Your task to perform on an android device: Add "razer blackwidow" to the cart on target.com, then select checkout. Image 0: 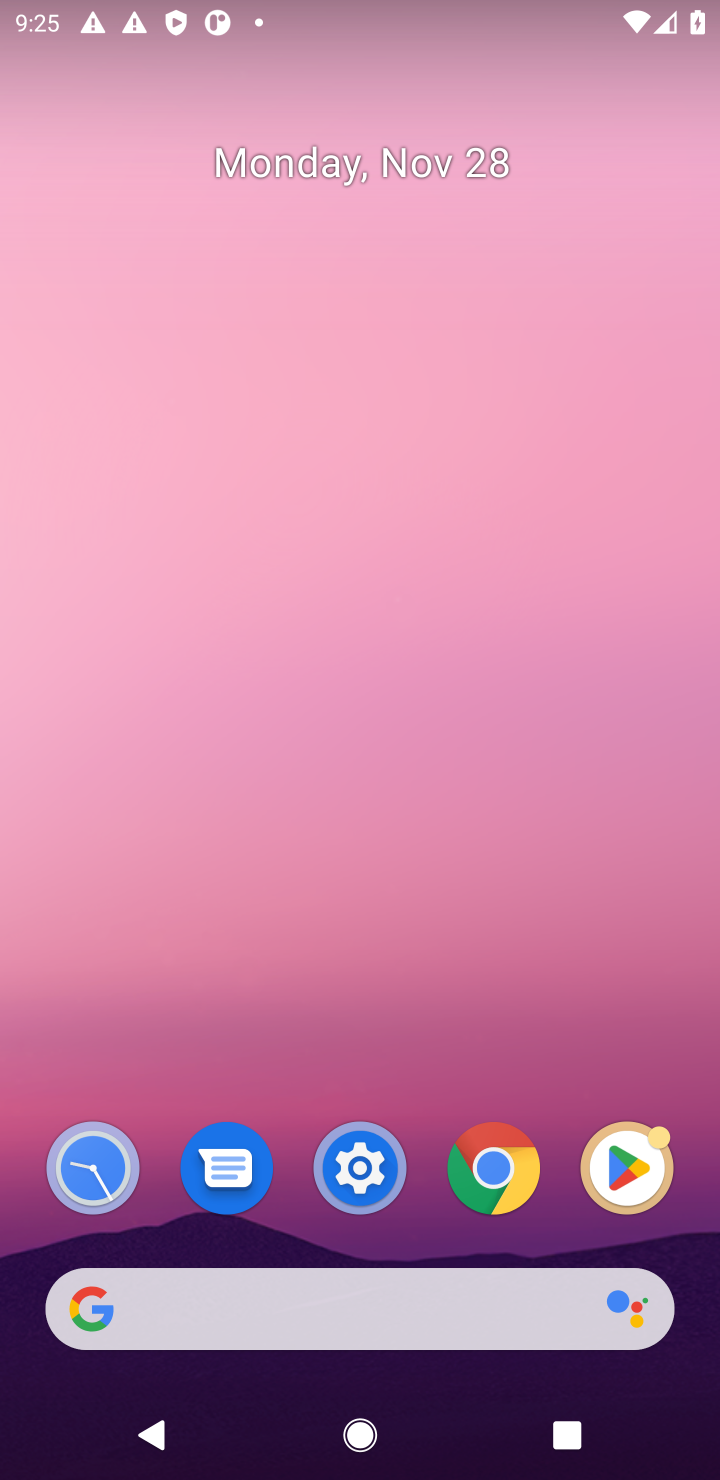
Step 0: click (372, 1332)
Your task to perform on an android device: Add "razer blackwidow" to the cart on target.com, then select checkout. Image 1: 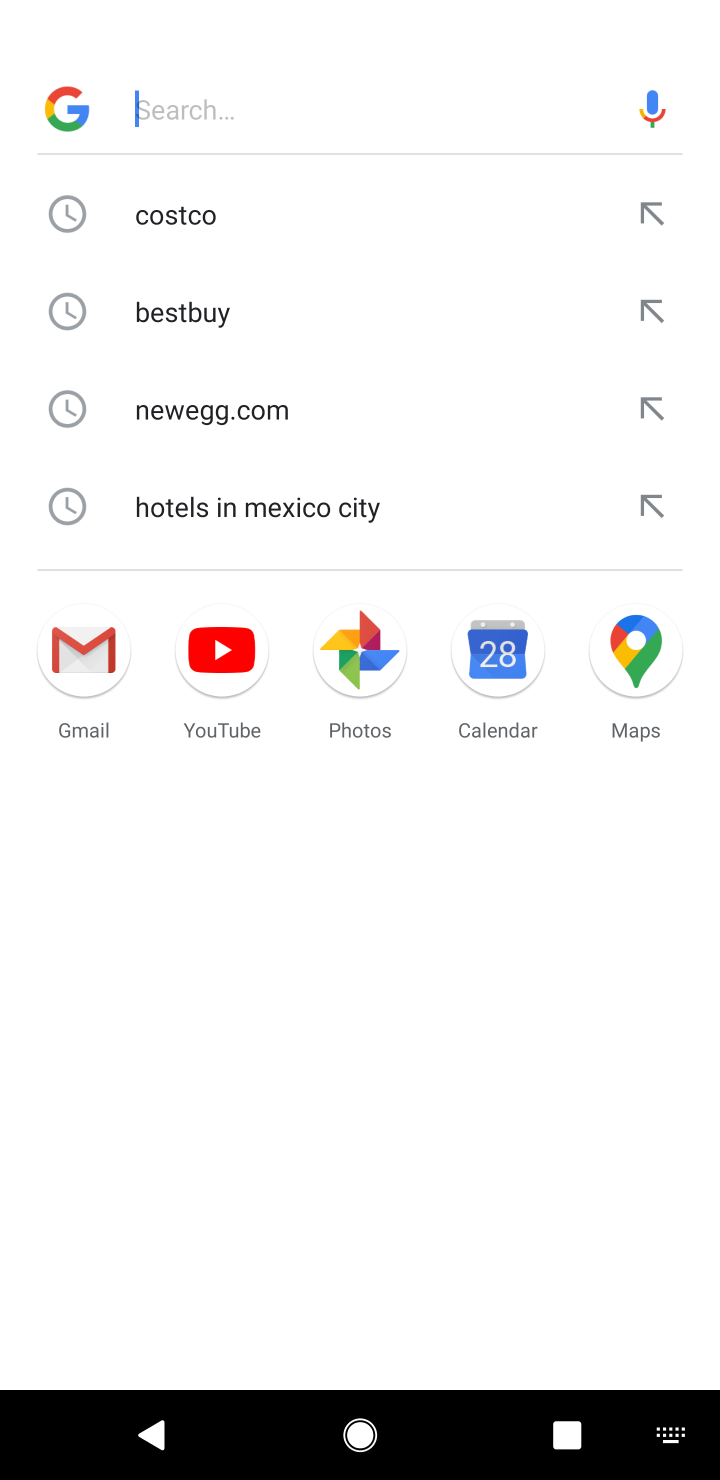
Step 1: type "razer black window"
Your task to perform on an android device: Add "razer blackwidow" to the cart on target.com, then select checkout. Image 2: 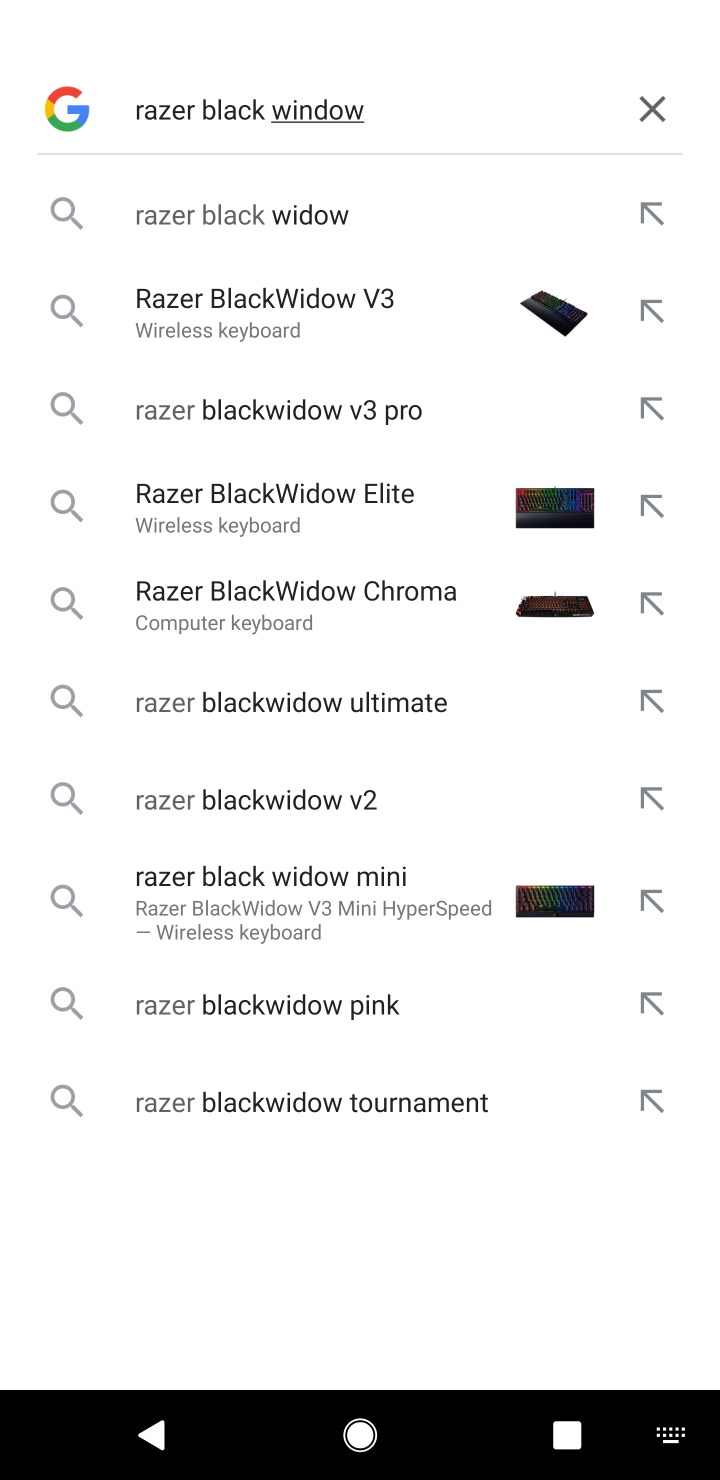
Step 2: click (146, 178)
Your task to perform on an android device: Add "razer blackwidow" to the cart on target.com, then select checkout. Image 3: 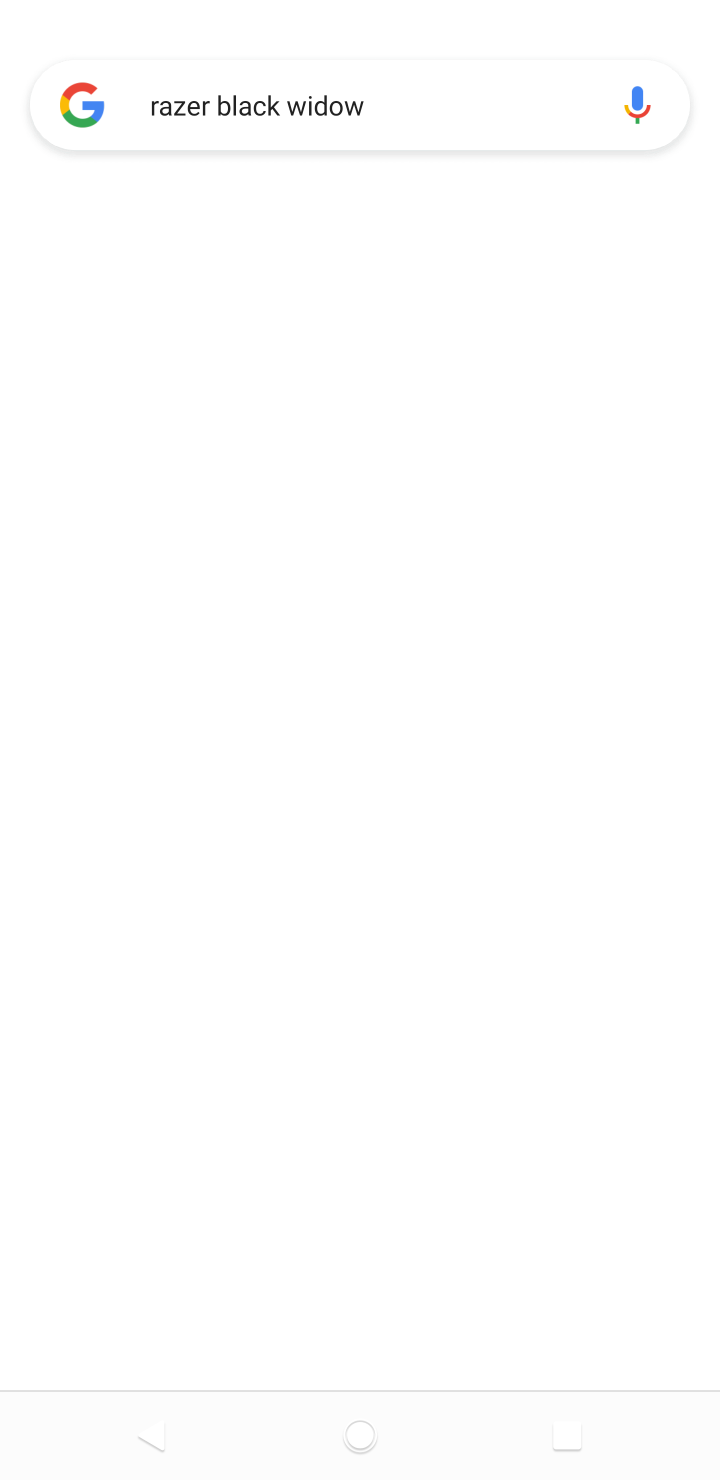
Step 3: task complete